Your task to perform on an android device: Open calendar and show me the third week of next month Image 0: 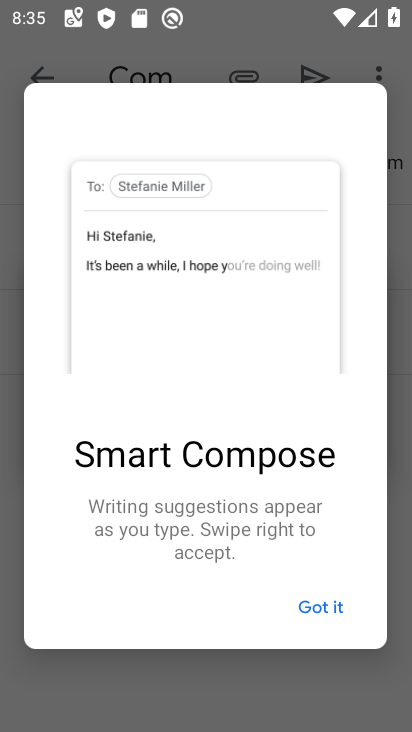
Step 0: press home button
Your task to perform on an android device: Open calendar and show me the third week of next month Image 1: 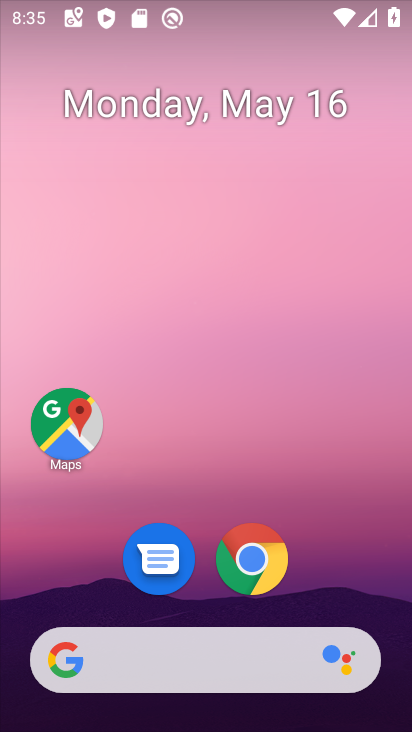
Step 1: drag from (326, 590) to (275, 99)
Your task to perform on an android device: Open calendar and show me the third week of next month Image 2: 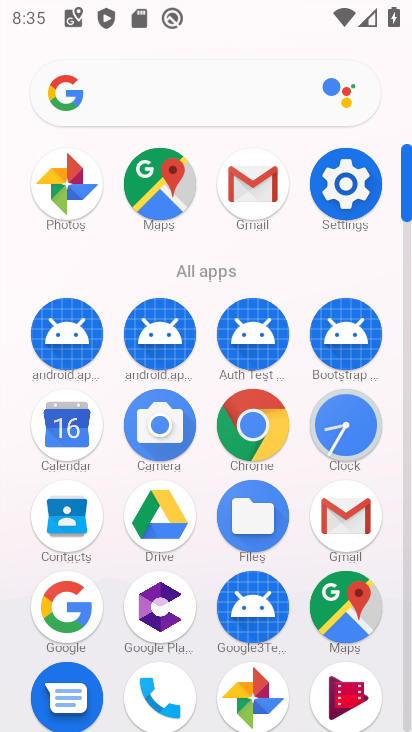
Step 2: click (55, 422)
Your task to perform on an android device: Open calendar and show me the third week of next month Image 3: 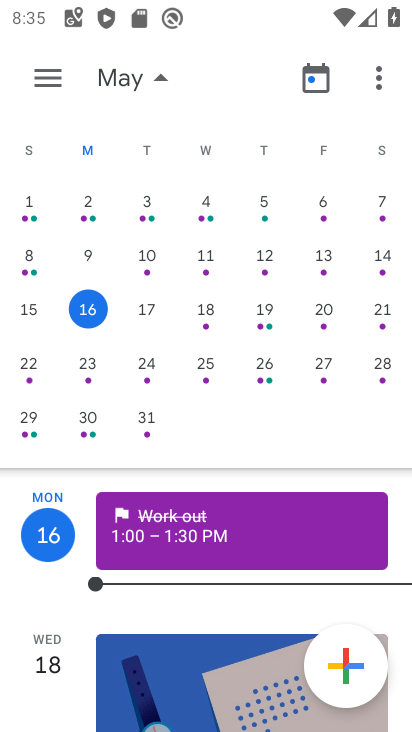
Step 3: drag from (341, 272) to (21, 330)
Your task to perform on an android device: Open calendar and show me the third week of next month Image 4: 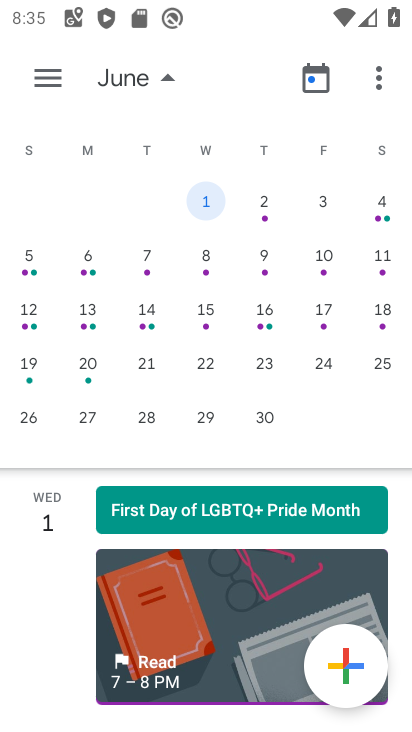
Step 4: click (34, 317)
Your task to perform on an android device: Open calendar and show me the third week of next month Image 5: 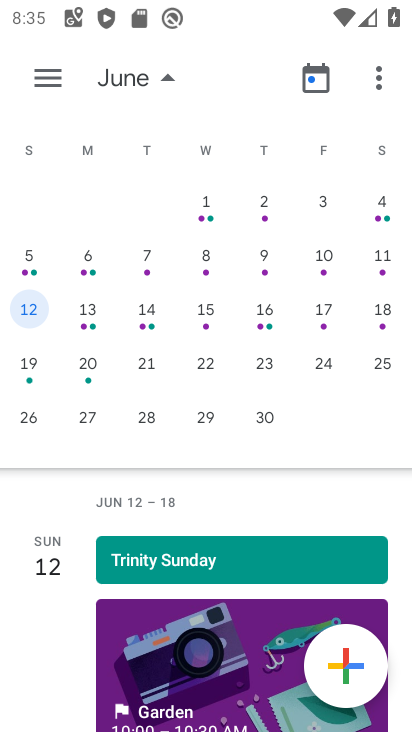
Step 5: task complete